Your task to perform on an android device: What's the weather? Image 0: 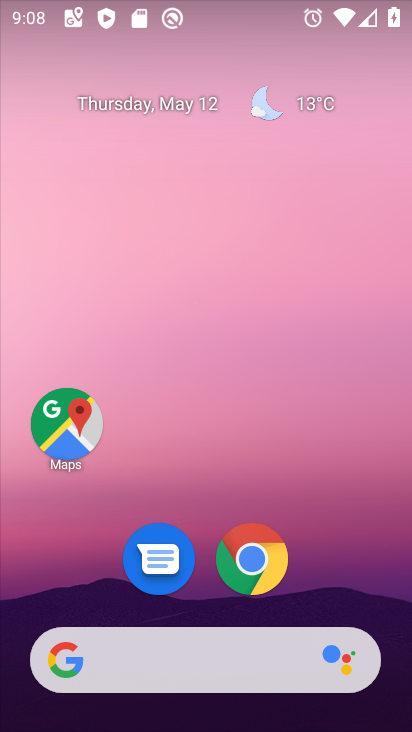
Step 0: click (266, 109)
Your task to perform on an android device: What's the weather? Image 1: 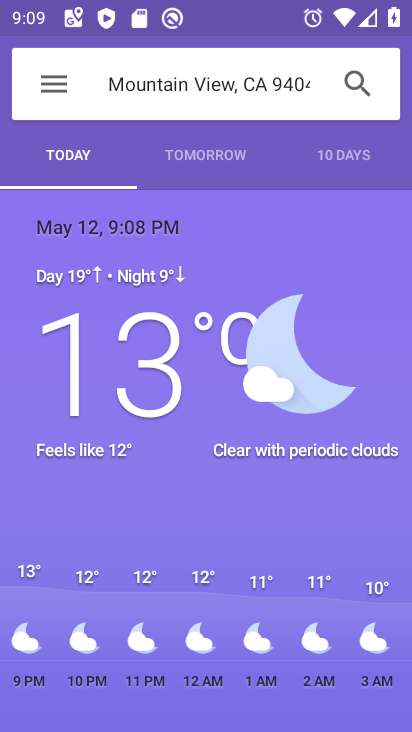
Step 1: task complete